Your task to perform on an android device: delete browsing data in the chrome app Image 0: 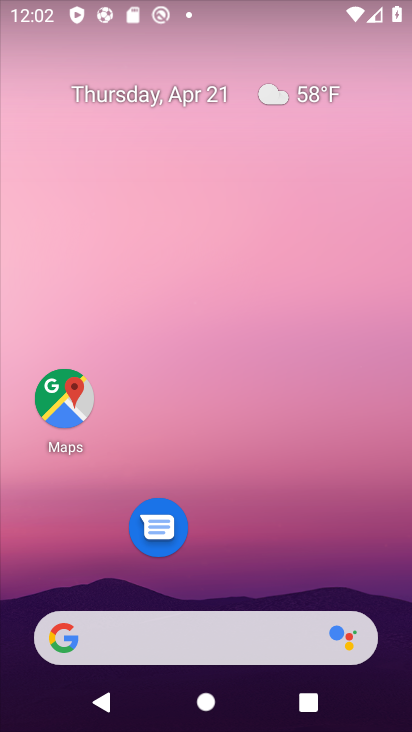
Step 0: click (212, 83)
Your task to perform on an android device: delete browsing data in the chrome app Image 1: 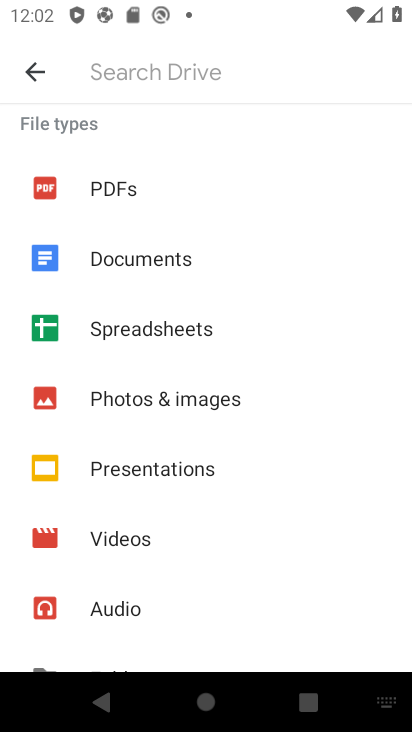
Step 1: press home button
Your task to perform on an android device: delete browsing data in the chrome app Image 2: 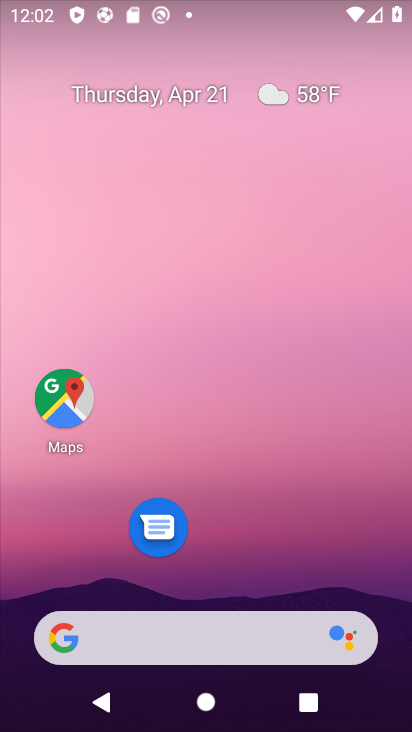
Step 2: drag from (220, 720) to (225, 123)
Your task to perform on an android device: delete browsing data in the chrome app Image 3: 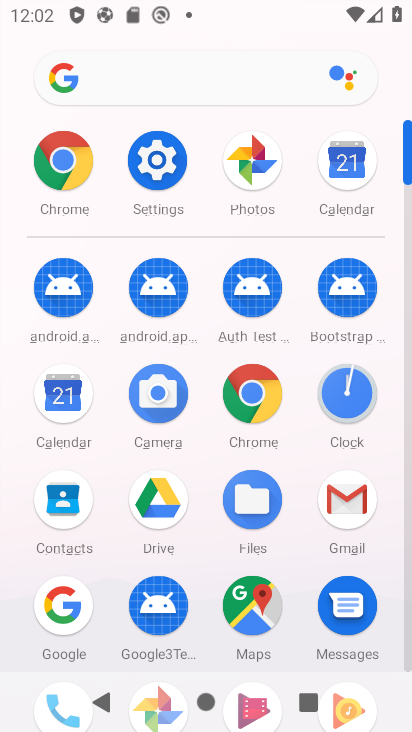
Step 3: click (66, 168)
Your task to perform on an android device: delete browsing data in the chrome app Image 4: 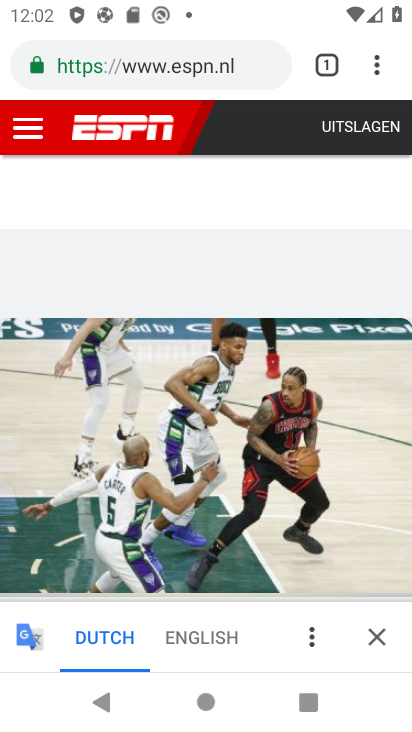
Step 4: click (376, 72)
Your task to perform on an android device: delete browsing data in the chrome app Image 5: 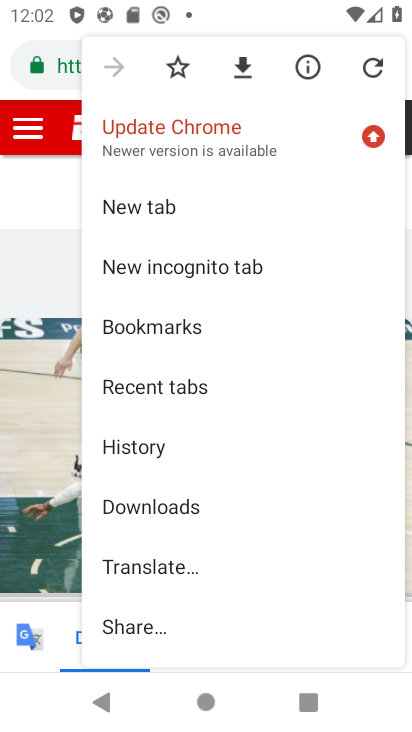
Step 5: click (137, 442)
Your task to perform on an android device: delete browsing data in the chrome app Image 6: 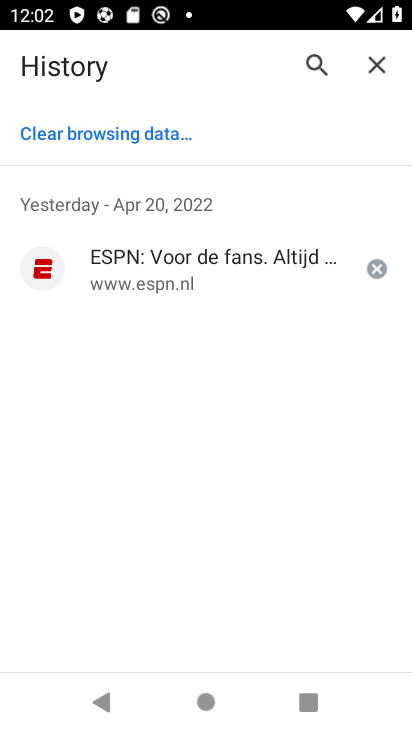
Step 6: click (157, 131)
Your task to perform on an android device: delete browsing data in the chrome app Image 7: 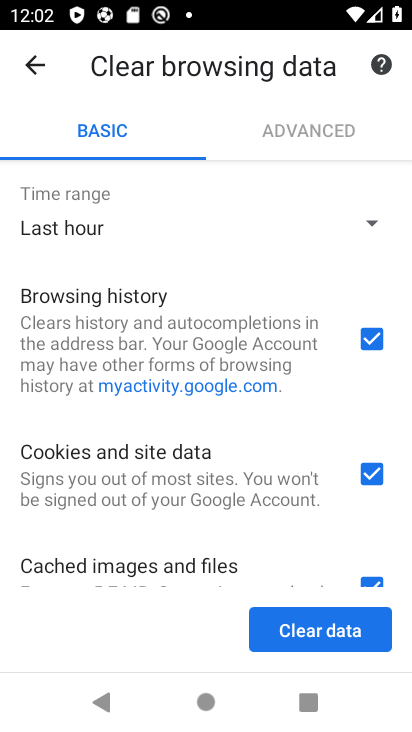
Step 7: click (373, 478)
Your task to perform on an android device: delete browsing data in the chrome app Image 8: 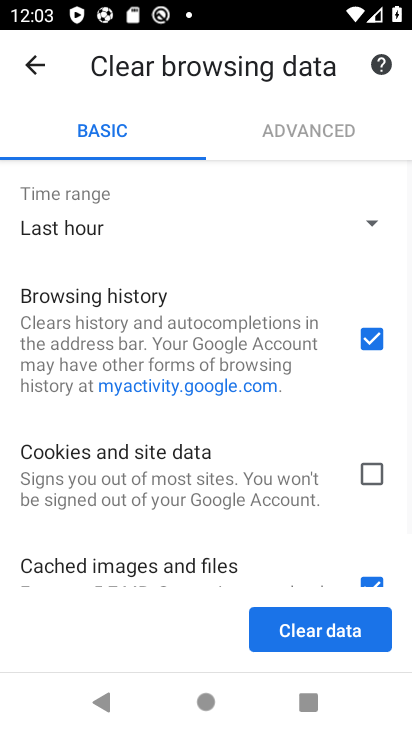
Step 8: click (374, 583)
Your task to perform on an android device: delete browsing data in the chrome app Image 9: 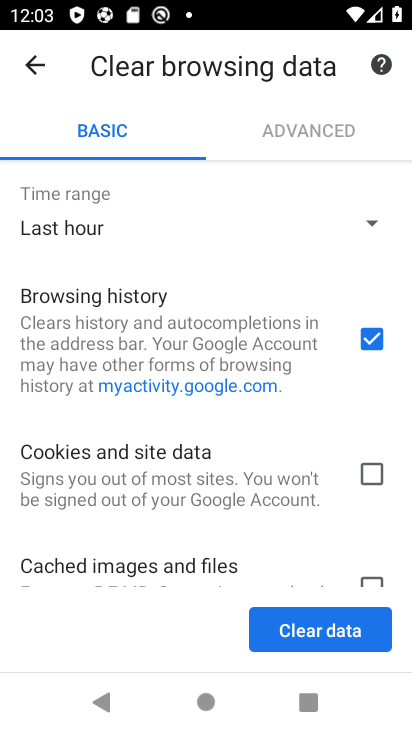
Step 9: click (314, 629)
Your task to perform on an android device: delete browsing data in the chrome app Image 10: 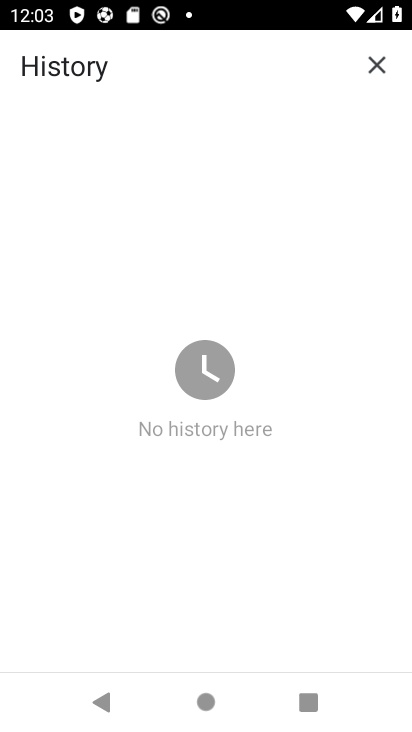
Step 10: task complete